Your task to perform on an android device: open app "Skype" Image 0: 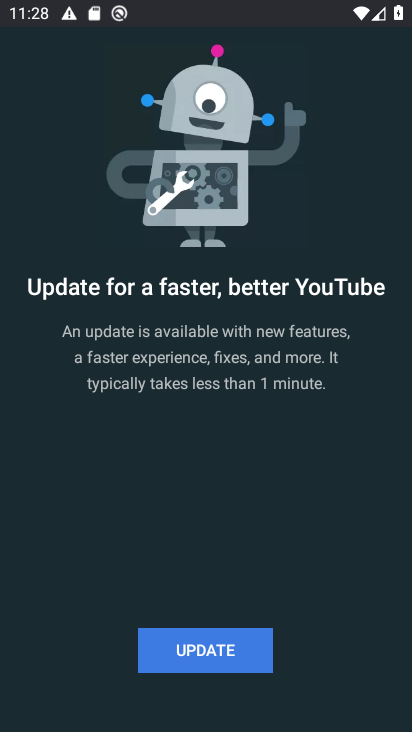
Step 0: press home button
Your task to perform on an android device: open app "Skype" Image 1: 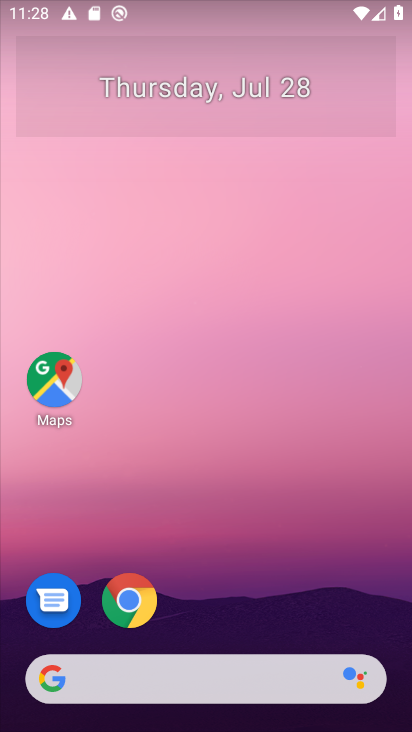
Step 1: drag from (217, 721) to (234, 381)
Your task to perform on an android device: open app "Skype" Image 2: 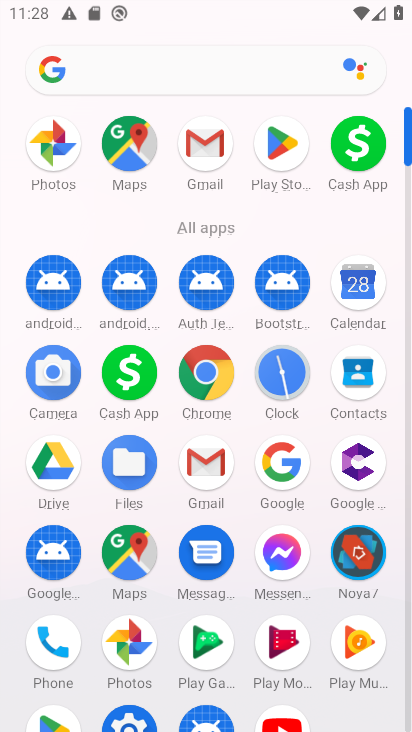
Step 2: drag from (223, 634) to (241, 163)
Your task to perform on an android device: open app "Skype" Image 3: 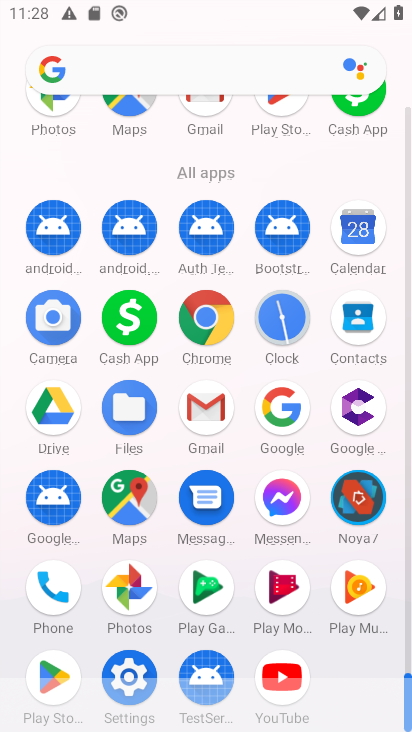
Step 3: click (256, 102)
Your task to perform on an android device: open app "Skype" Image 4: 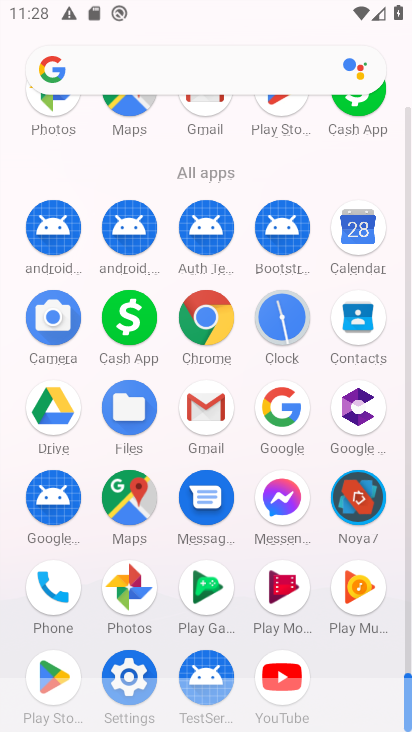
Step 4: click (256, 102)
Your task to perform on an android device: open app "Skype" Image 5: 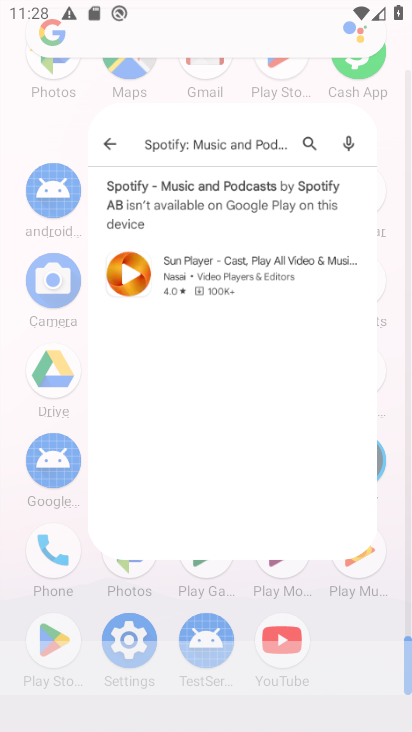
Step 5: click (256, 102)
Your task to perform on an android device: open app "Skype" Image 6: 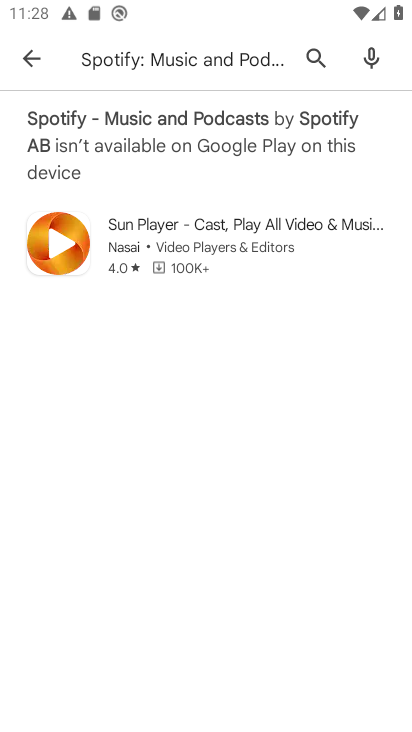
Step 6: click (314, 48)
Your task to perform on an android device: open app "Skype" Image 7: 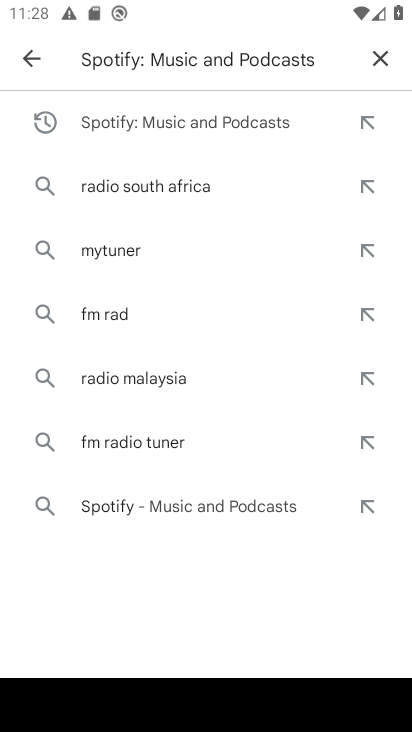
Step 7: click (384, 57)
Your task to perform on an android device: open app "Skype" Image 8: 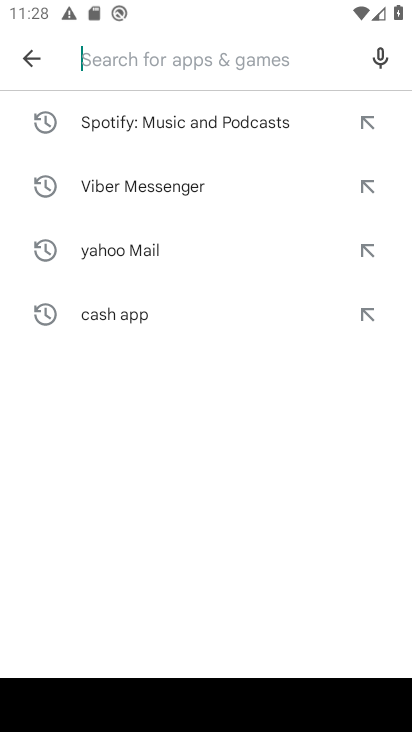
Step 8: type "skype"
Your task to perform on an android device: open app "Skype" Image 9: 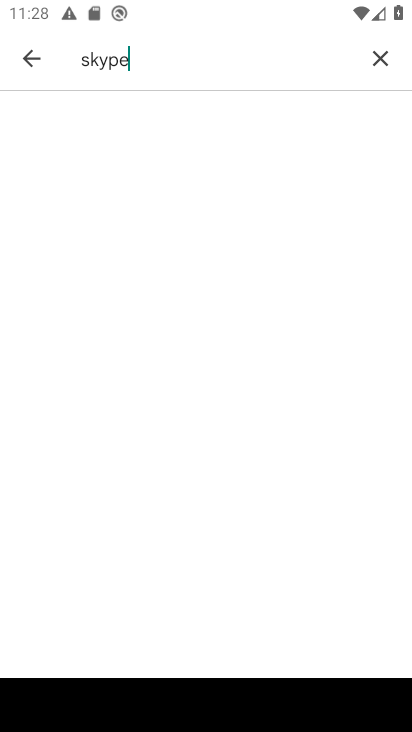
Step 9: press enter
Your task to perform on an android device: open app "Skype" Image 10: 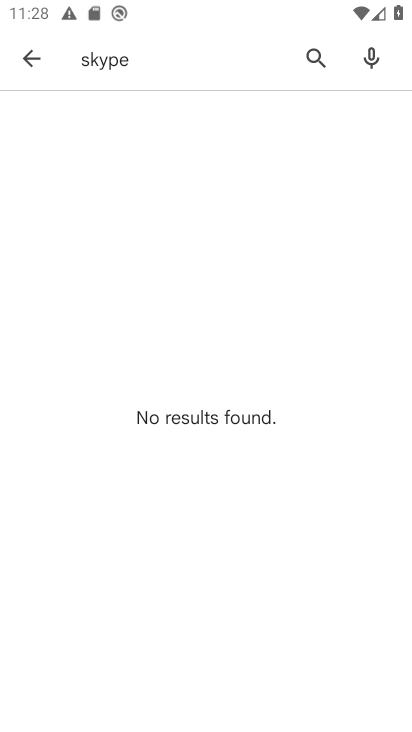
Step 10: task complete